Your task to perform on an android device: Open Google Chrome and open the bookmarks view Image 0: 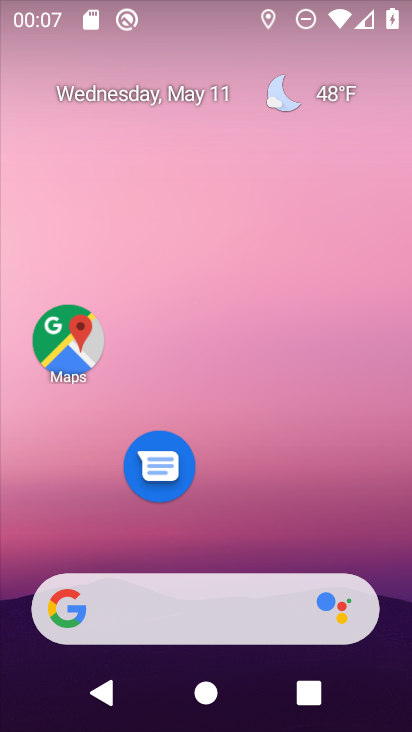
Step 0: drag from (310, 528) to (321, 32)
Your task to perform on an android device: Open Google Chrome and open the bookmarks view Image 1: 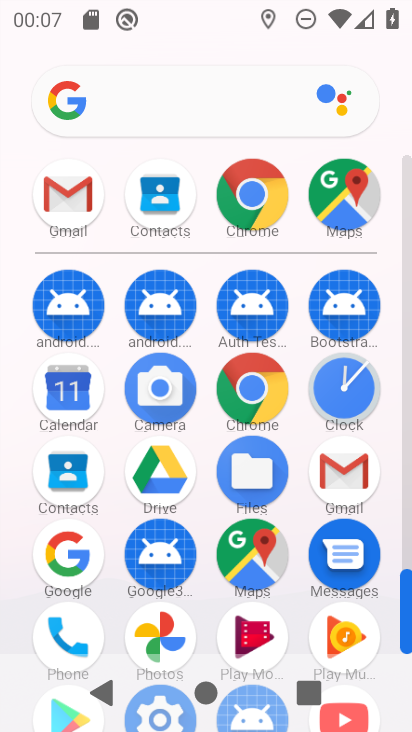
Step 1: click (257, 187)
Your task to perform on an android device: Open Google Chrome and open the bookmarks view Image 2: 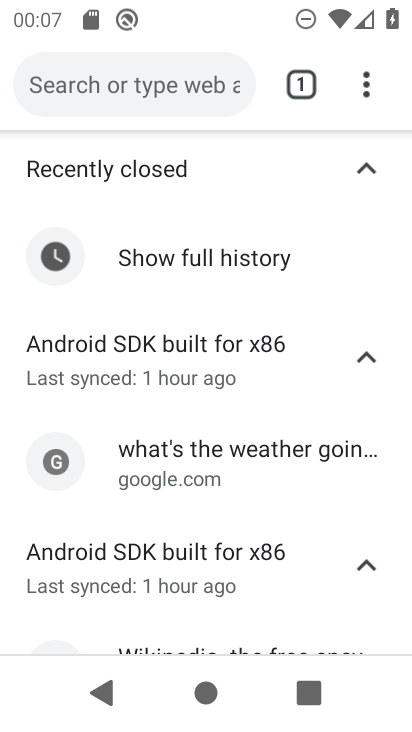
Step 2: click (361, 97)
Your task to perform on an android device: Open Google Chrome and open the bookmarks view Image 3: 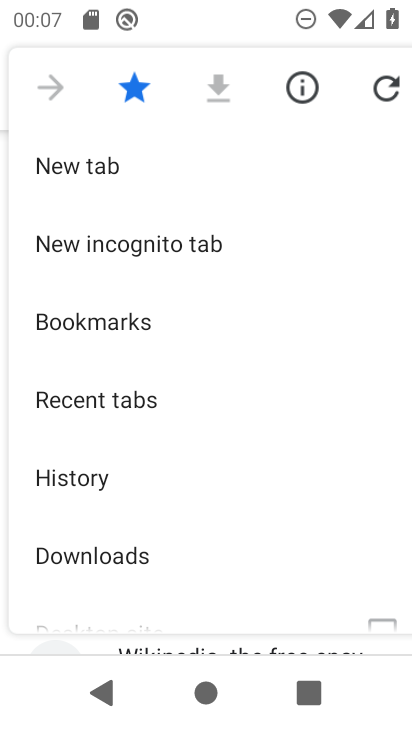
Step 3: click (101, 309)
Your task to perform on an android device: Open Google Chrome and open the bookmarks view Image 4: 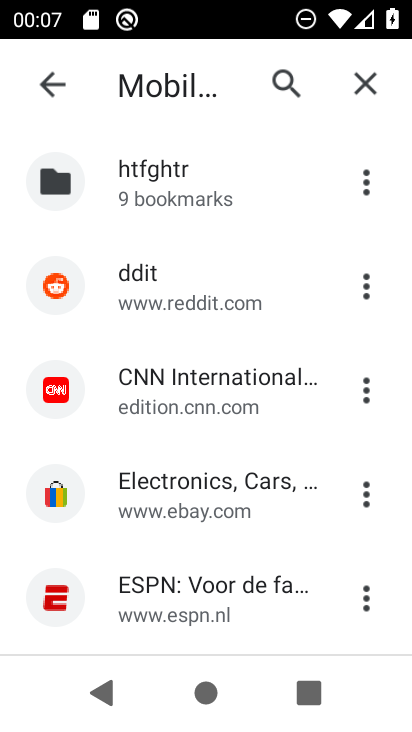
Step 4: task complete